Your task to perform on an android device: open device folders in google photos Image 0: 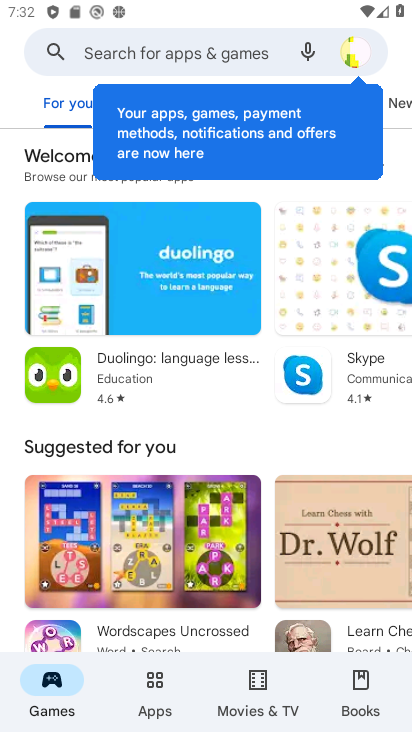
Step 0: press home button
Your task to perform on an android device: open device folders in google photos Image 1: 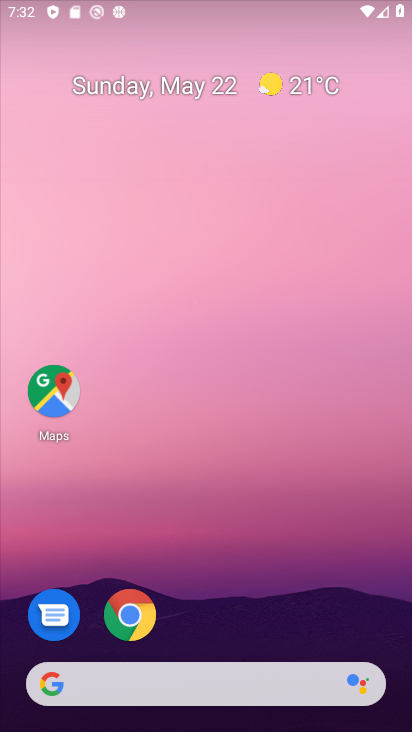
Step 1: drag from (241, 666) to (214, 326)
Your task to perform on an android device: open device folders in google photos Image 2: 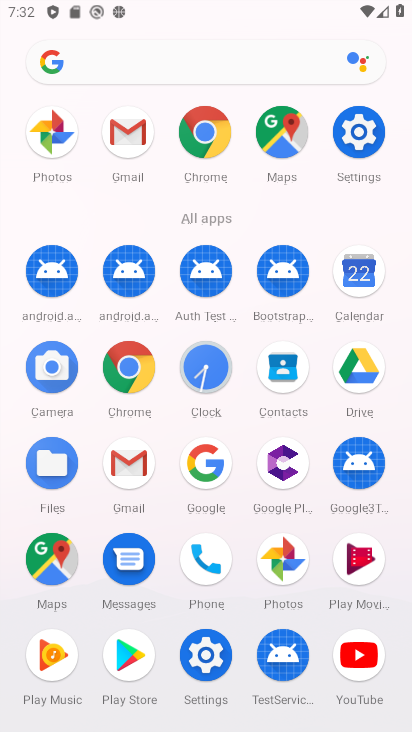
Step 2: click (292, 550)
Your task to perform on an android device: open device folders in google photos Image 3: 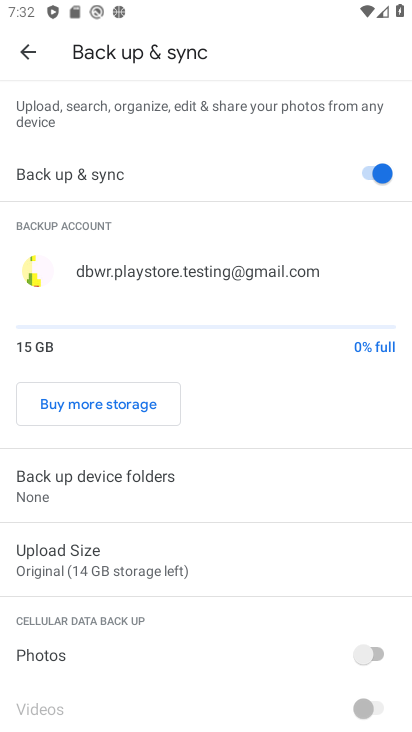
Step 3: click (23, 55)
Your task to perform on an android device: open device folders in google photos Image 4: 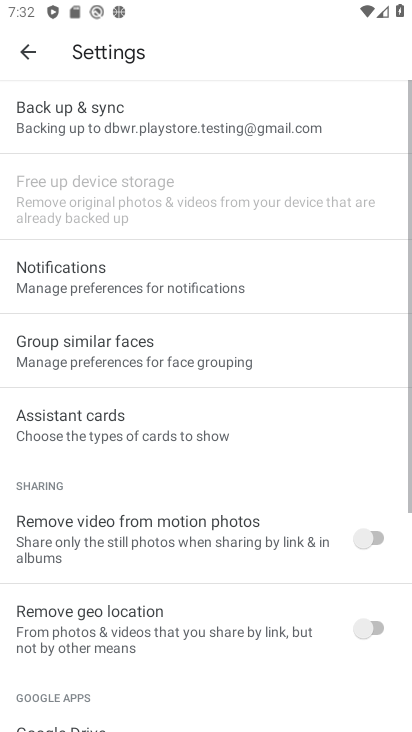
Step 4: click (35, 51)
Your task to perform on an android device: open device folders in google photos Image 5: 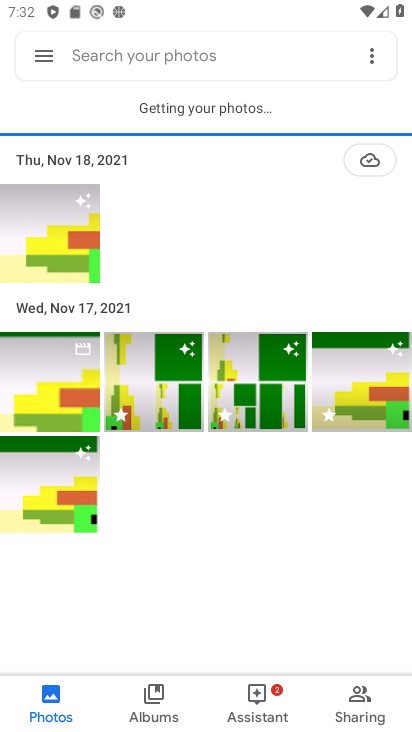
Step 5: task complete